Your task to perform on an android device: snooze an email in the gmail app Image 0: 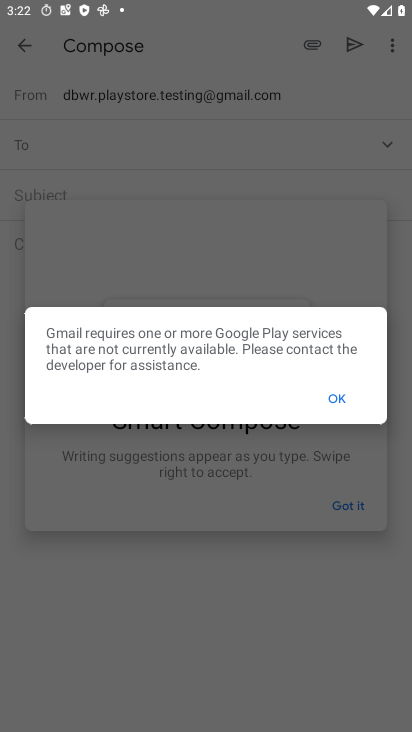
Step 0: press home button
Your task to perform on an android device: snooze an email in the gmail app Image 1: 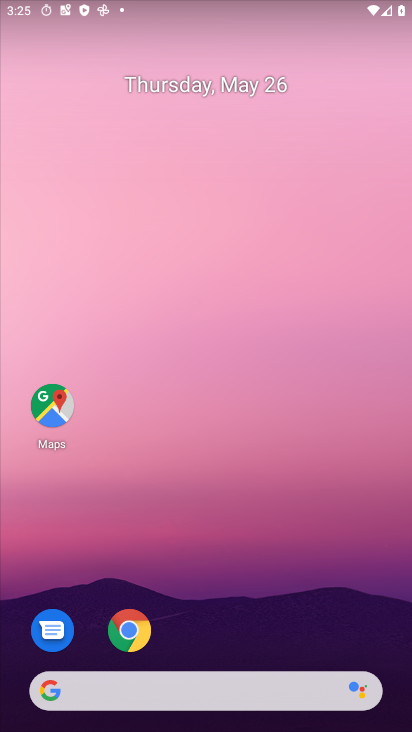
Step 1: drag from (207, 600) to (183, 152)
Your task to perform on an android device: snooze an email in the gmail app Image 2: 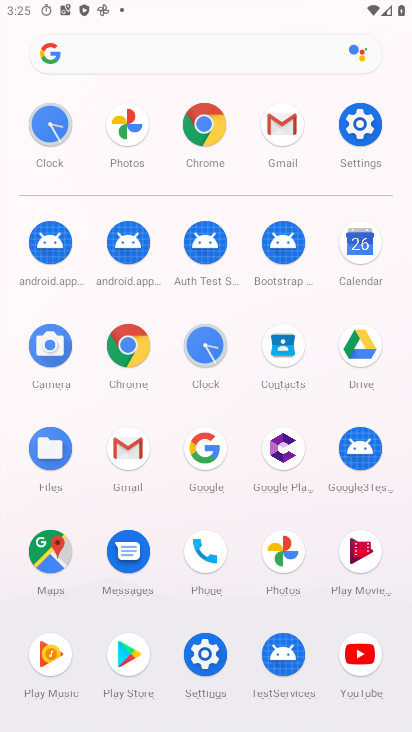
Step 2: click (285, 129)
Your task to perform on an android device: snooze an email in the gmail app Image 3: 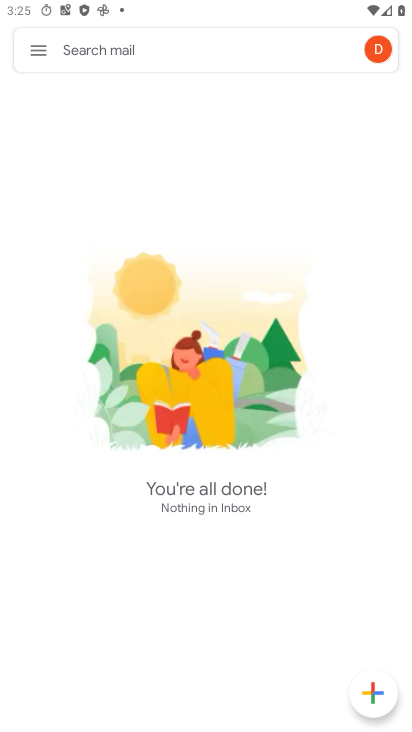
Step 3: click (27, 54)
Your task to perform on an android device: snooze an email in the gmail app Image 4: 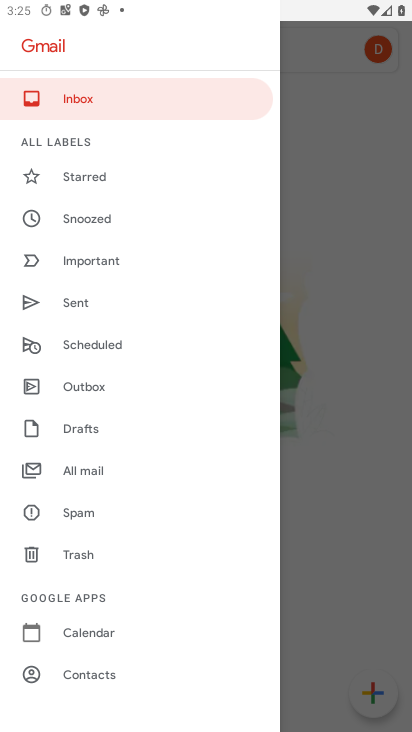
Step 4: click (76, 217)
Your task to perform on an android device: snooze an email in the gmail app Image 5: 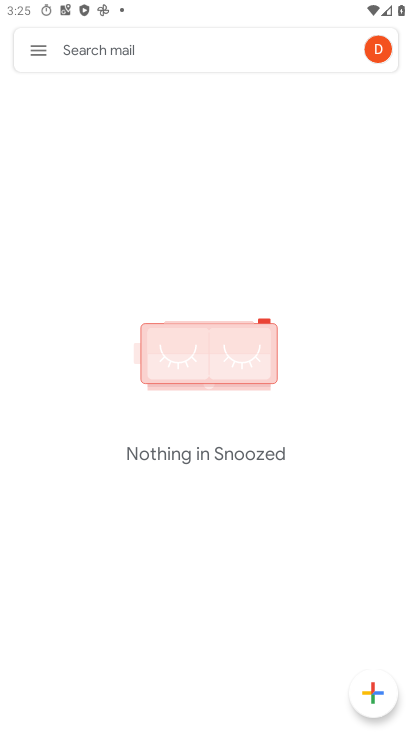
Step 5: task complete